Your task to perform on an android device: turn off location Image 0: 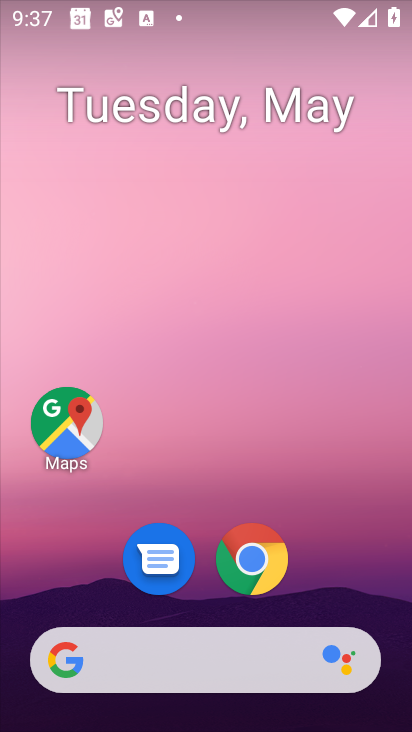
Step 0: drag from (164, 671) to (213, 115)
Your task to perform on an android device: turn off location Image 1: 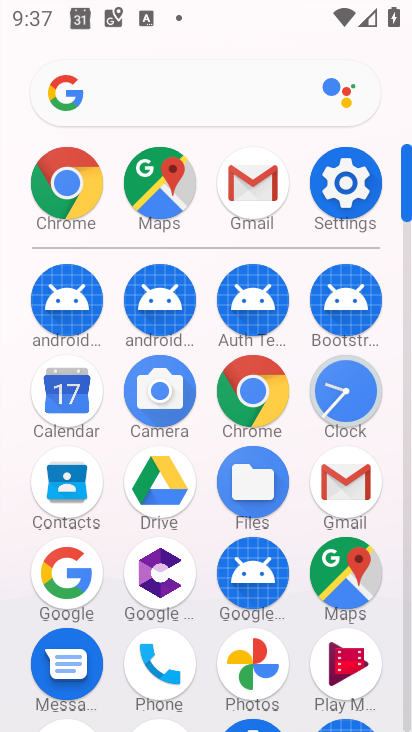
Step 1: click (353, 190)
Your task to perform on an android device: turn off location Image 2: 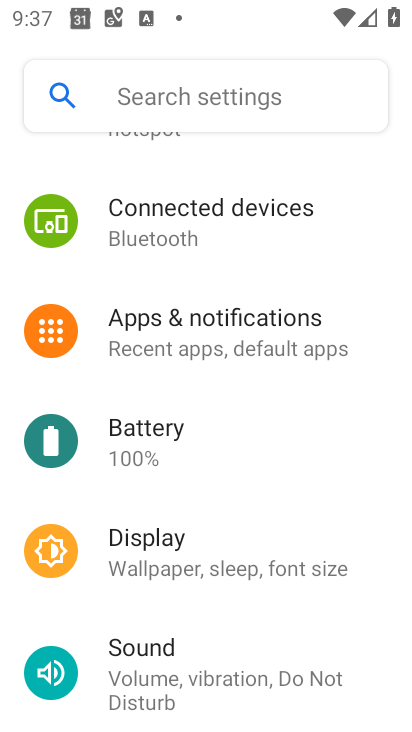
Step 2: drag from (185, 555) to (161, 13)
Your task to perform on an android device: turn off location Image 3: 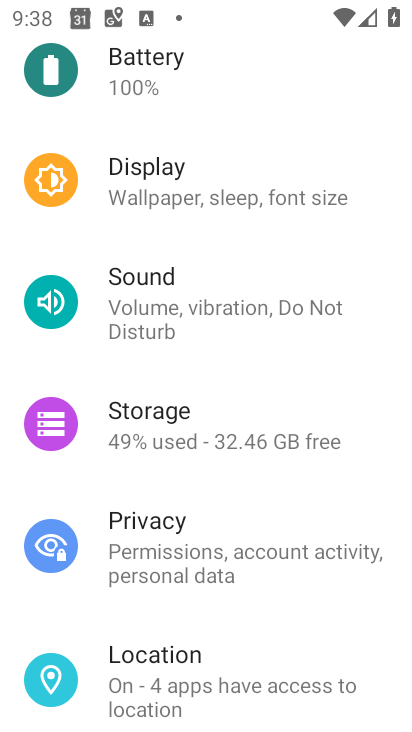
Step 3: click (247, 662)
Your task to perform on an android device: turn off location Image 4: 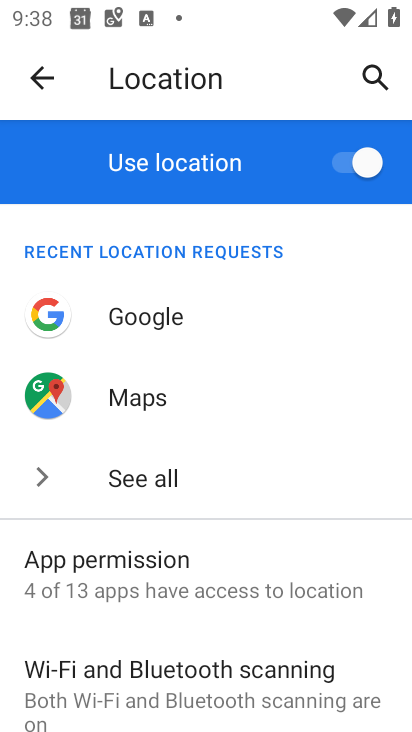
Step 4: click (356, 173)
Your task to perform on an android device: turn off location Image 5: 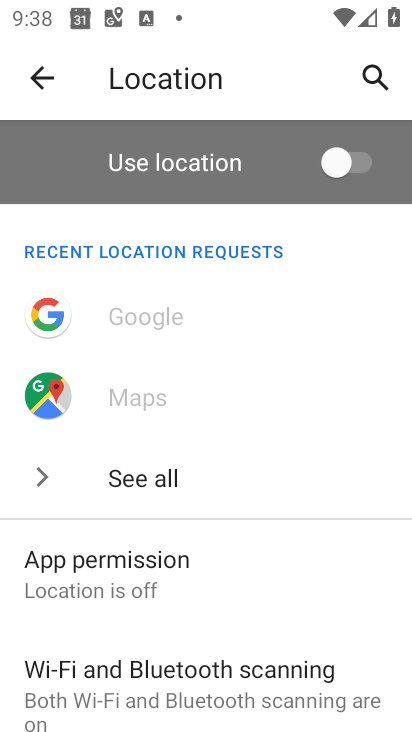
Step 5: task complete